Your task to perform on an android device: search for starred emails in the gmail app Image 0: 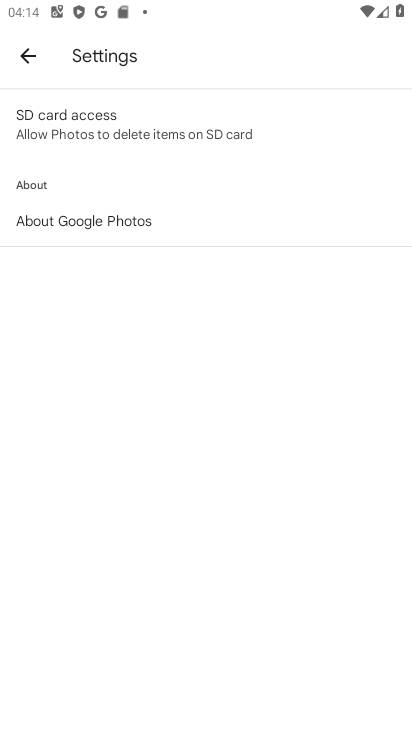
Step 0: press home button
Your task to perform on an android device: search for starred emails in the gmail app Image 1: 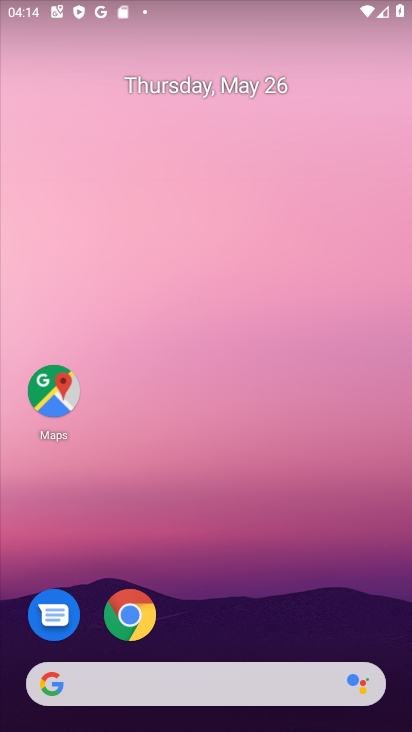
Step 1: drag from (198, 641) to (196, 180)
Your task to perform on an android device: search for starred emails in the gmail app Image 2: 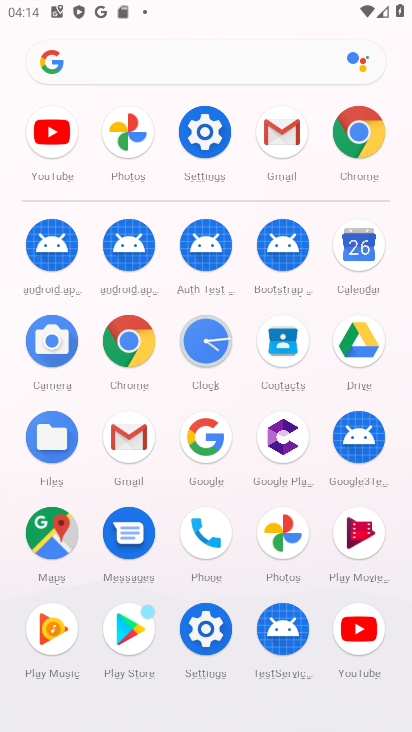
Step 2: click (279, 144)
Your task to perform on an android device: search for starred emails in the gmail app Image 3: 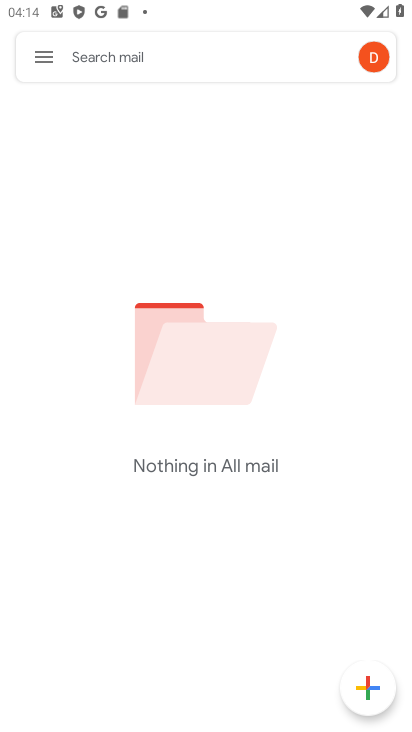
Step 3: click (41, 54)
Your task to perform on an android device: search for starred emails in the gmail app Image 4: 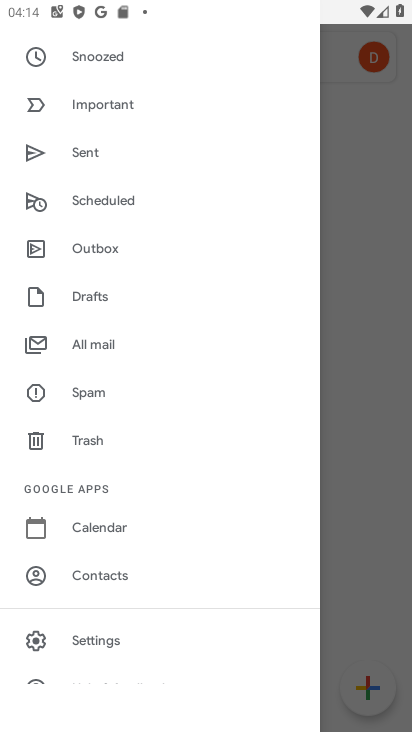
Step 4: drag from (123, 150) to (104, 402)
Your task to perform on an android device: search for starred emails in the gmail app Image 5: 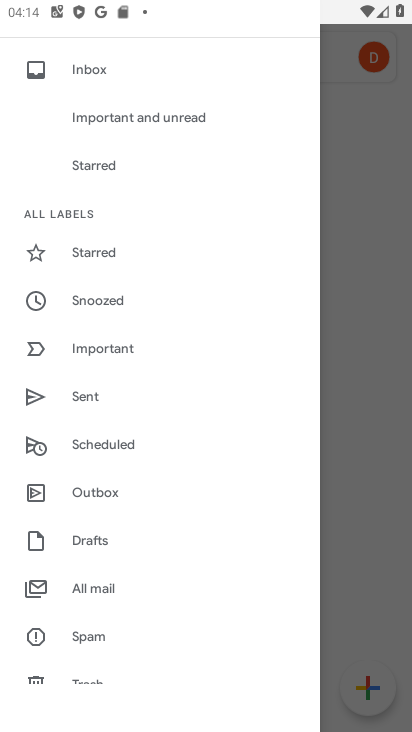
Step 5: click (85, 251)
Your task to perform on an android device: search for starred emails in the gmail app Image 6: 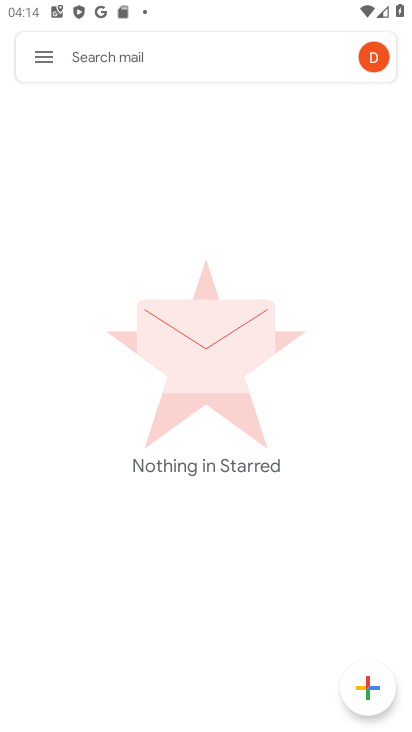
Step 6: task complete